Your task to perform on an android device: toggle improve location accuracy Image 0: 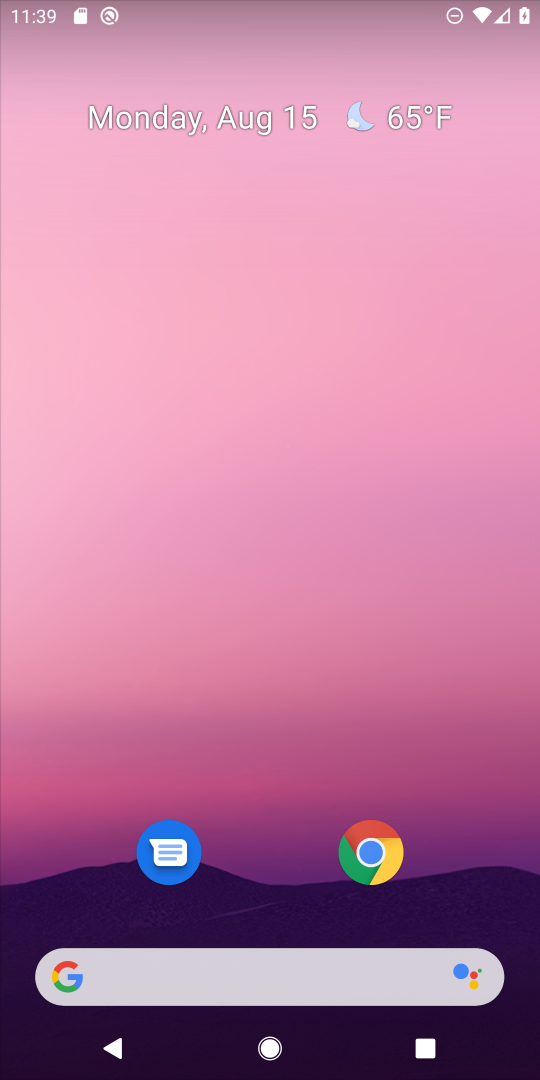
Step 0: drag from (248, 801) to (392, 41)
Your task to perform on an android device: toggle improve location accuracy Image 1: 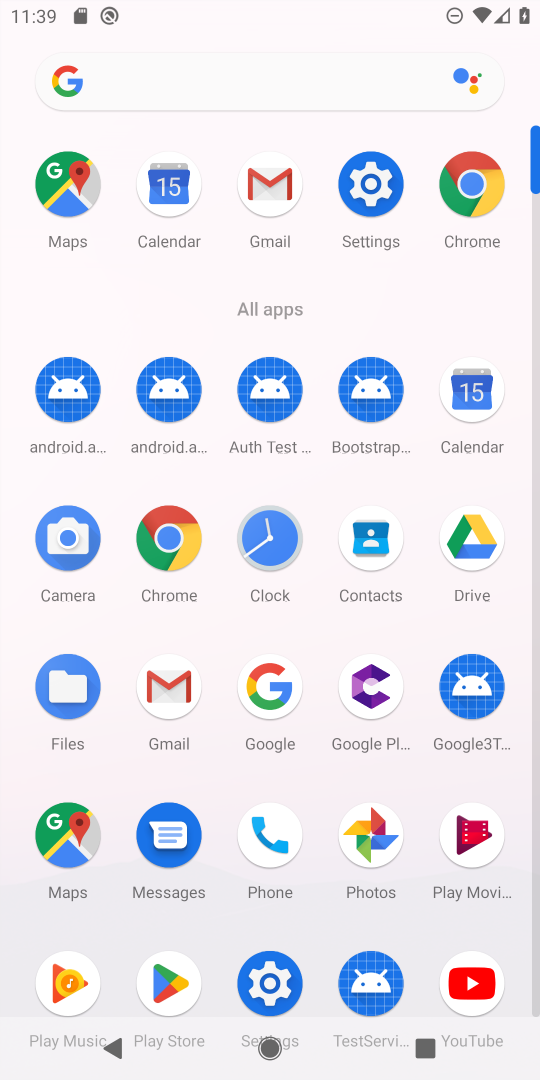
Step 1: click (366, 172)
Your task to perform on an android device: toggle improve location accuracy Image 2: 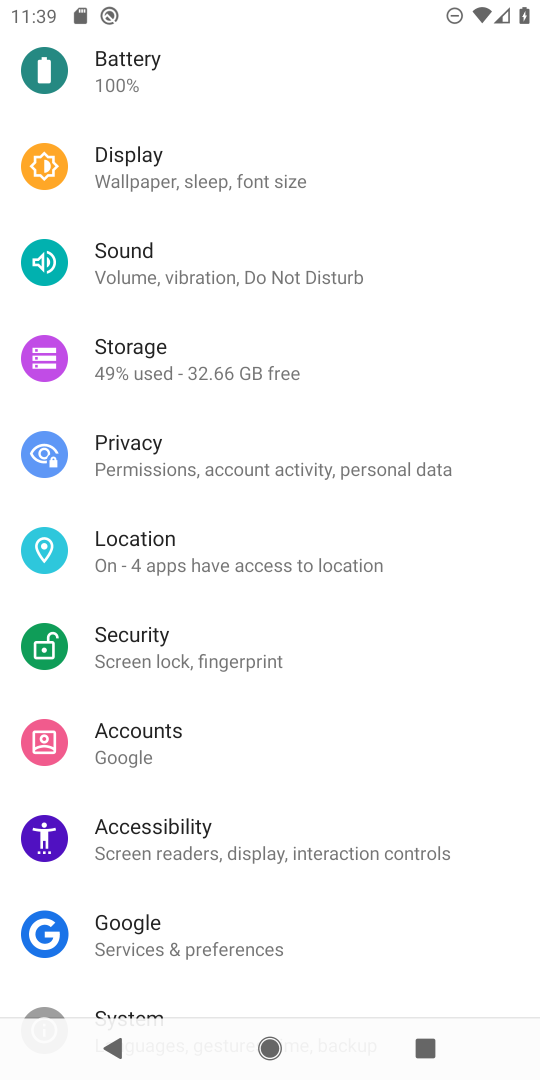
Step 2: drag from (367, 238) to (306, 753)
Your task to perform on an android device: toggle improve location accuracy Image 3: 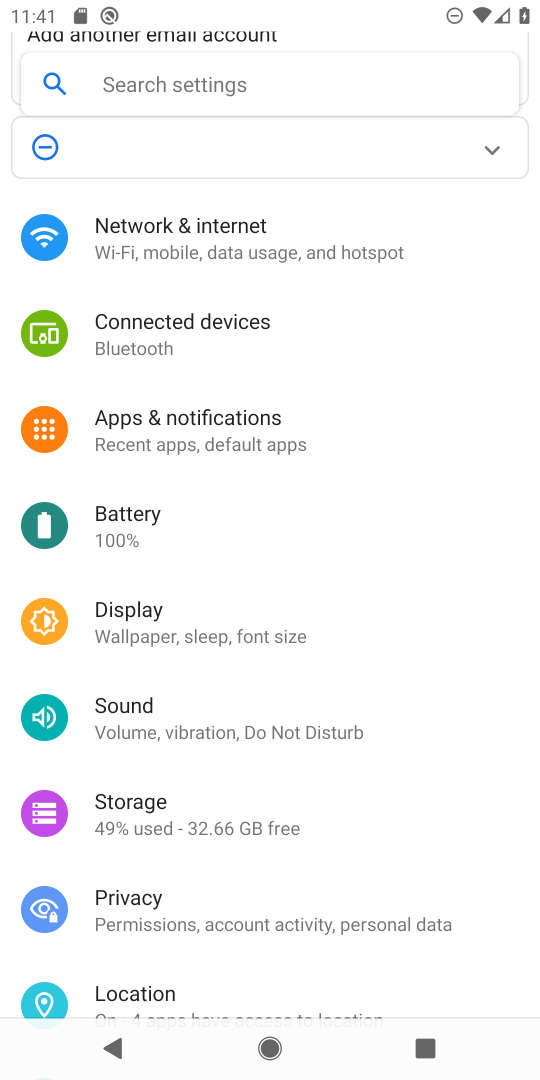
Step 3: click (150, 989)
Your task to perform on an android device: toggle improve location accuracy Image 4: 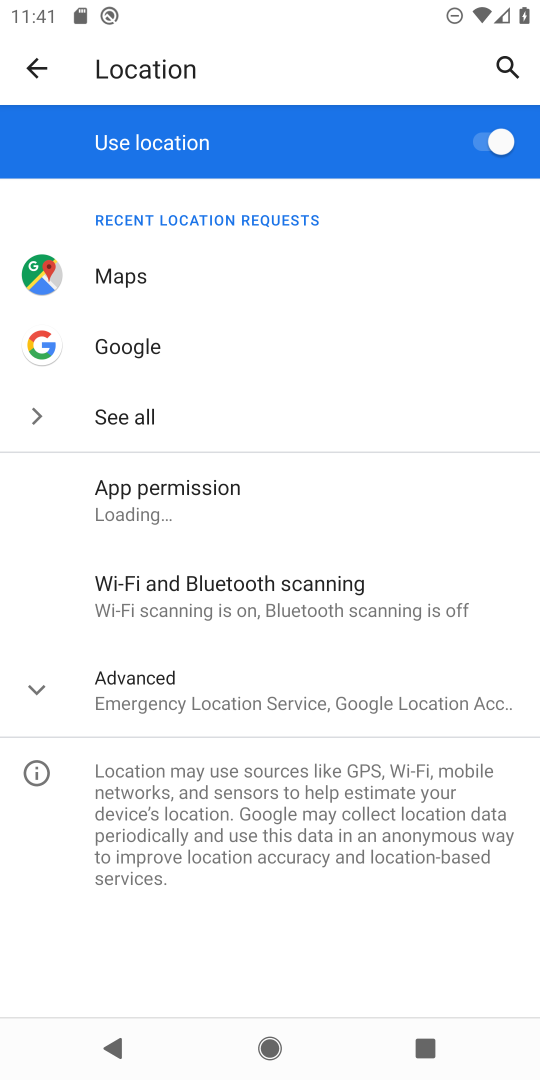
Step 4: click (251, 694)
Your task to perform on an android device: toggle improve location accuracy Image 5: 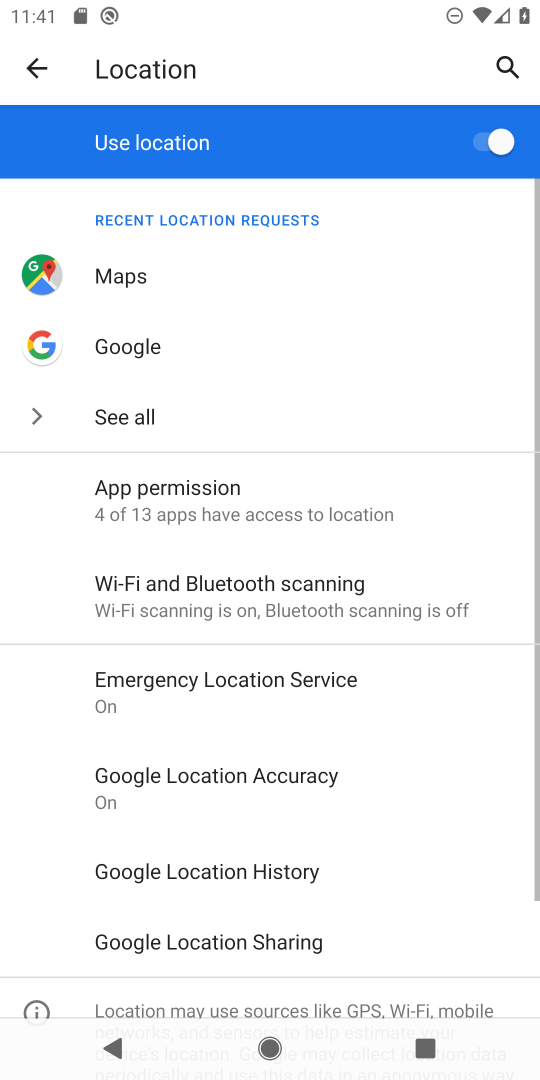
Step 5: click (166, 775)
Your task to perform on an android device: toggle improve location accuracy Image 6: 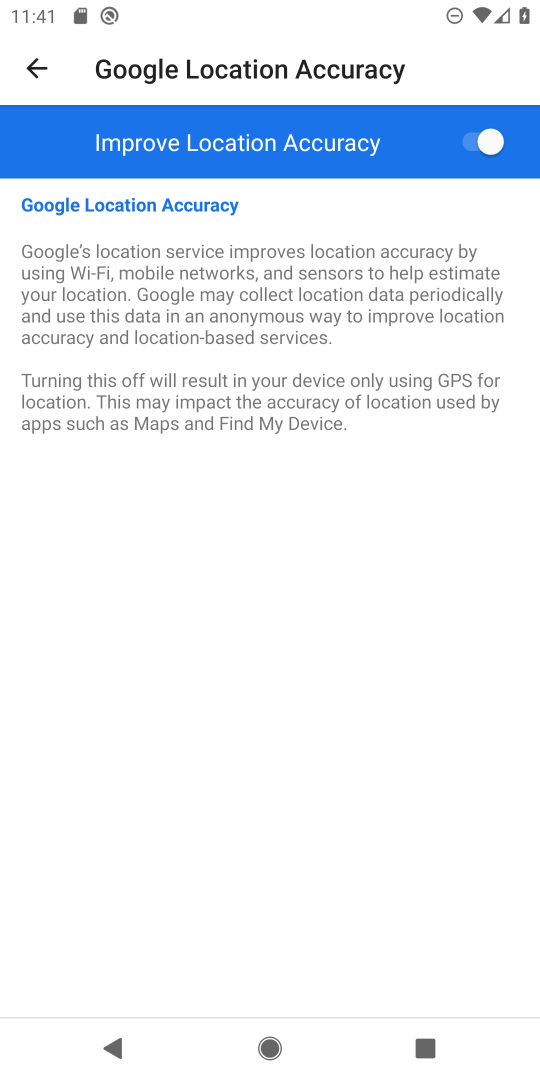
Step 6: click (488, 141)
Your task to perform on an android device: toggle improve location accuracy Image 7: 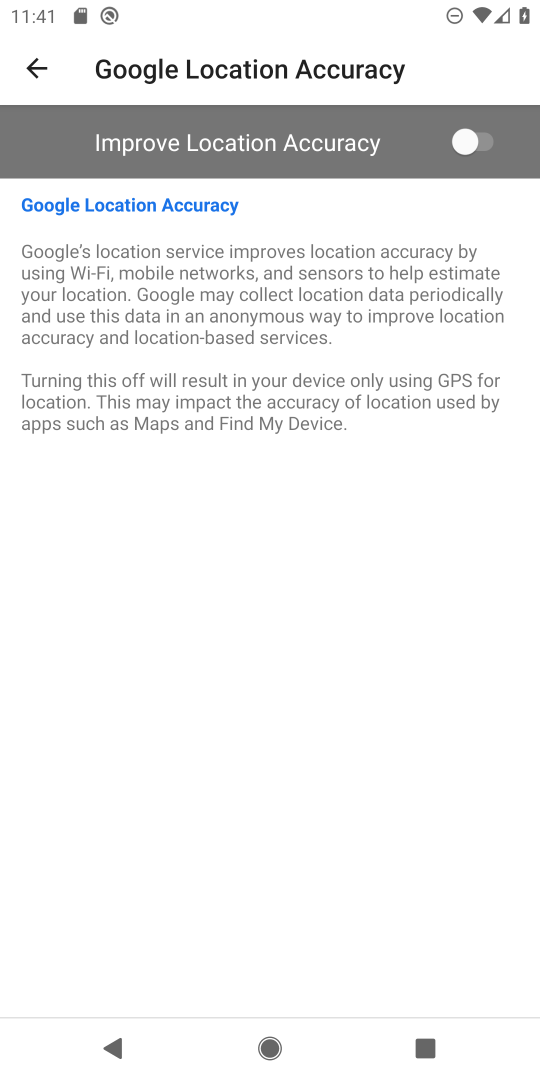
Step 7: task complete